Your task to perform on an android device: set the stopwatch Image 0: 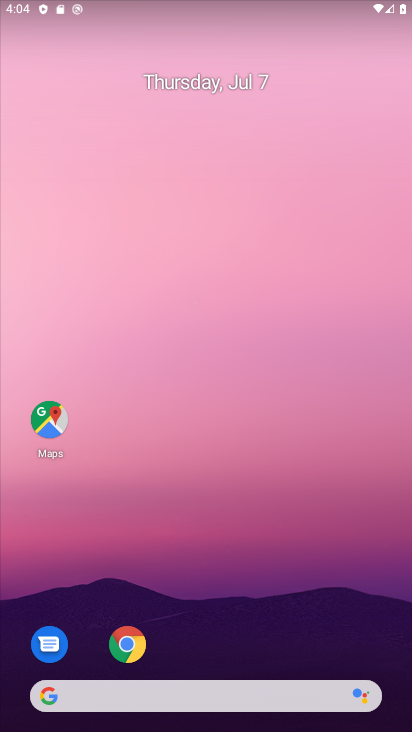
Step 0: press home button
Your task to perform on an android device: set the stopwatch Image 1: 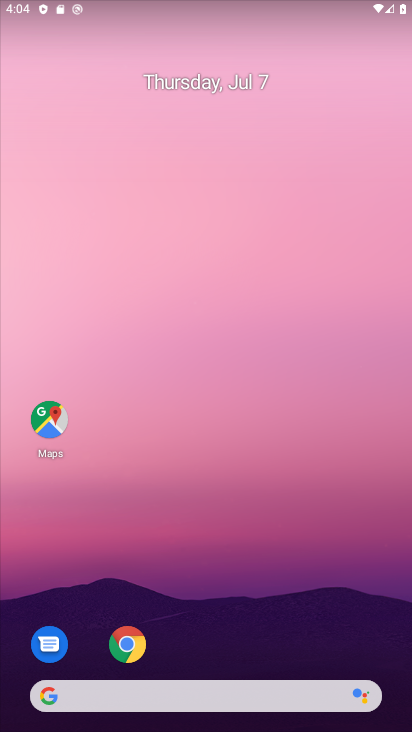
Step 1: drag from (239, 648) to (266, 78)
Your task to perform on an android device: set the stopwatch Image 2: 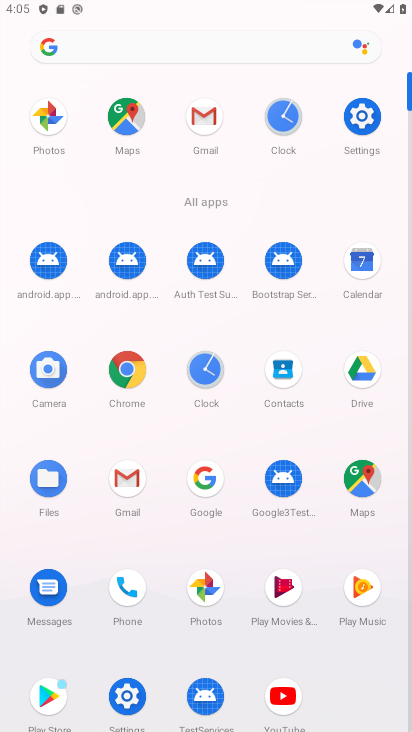
Step 2: click (285, 118)
Your task to perform on an android device: set the stopwatch Image 3: 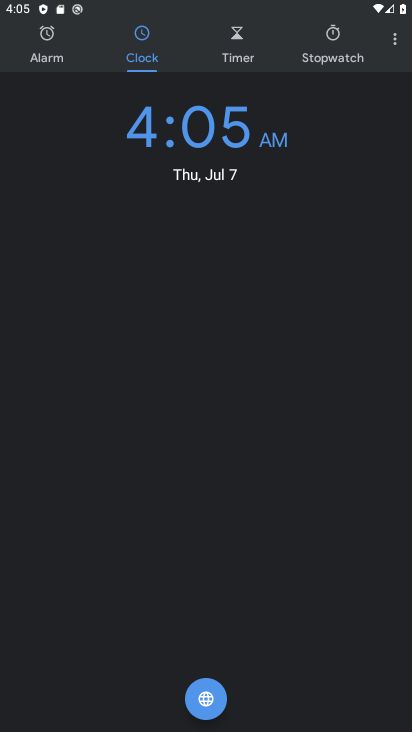
Step 3: click (46, 34)
Your task to perform on an android device: set the stopwatch Image 4: 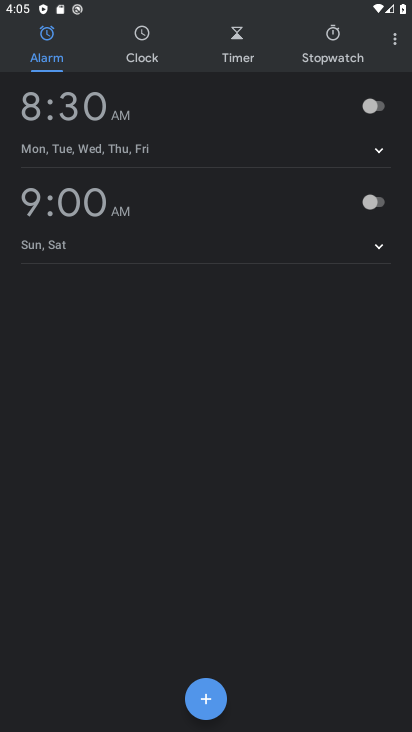
Step 4: click (207, 692)
Your task to perform on an android device: set the stopwatch Image 5: 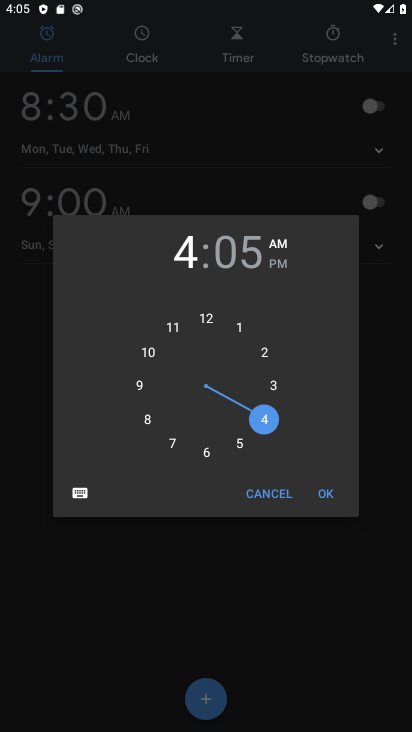
Step 5: click (168, 442)
Your task to perform on an android device: set the stopwatch Image 6: 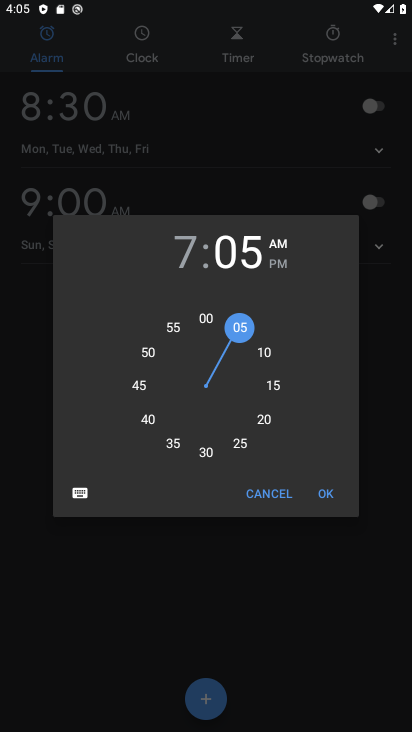
Step 6: click (168, 442)
Your task to perform on an android device: set the stopwatch Image 7: 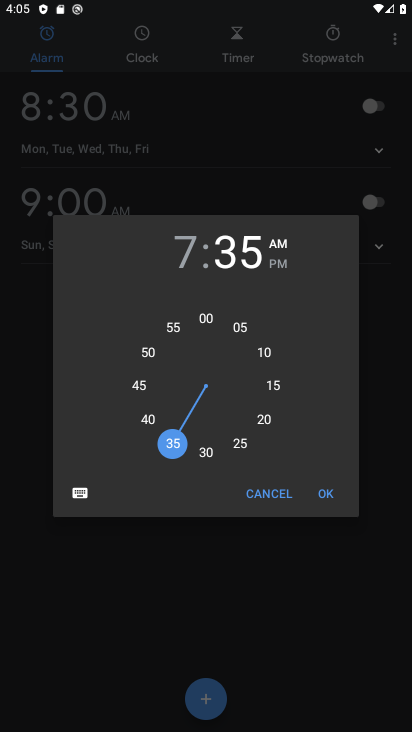
Step 7: click (326, 488)
Your task to perform on an android device: set the stopwatch Image 8: 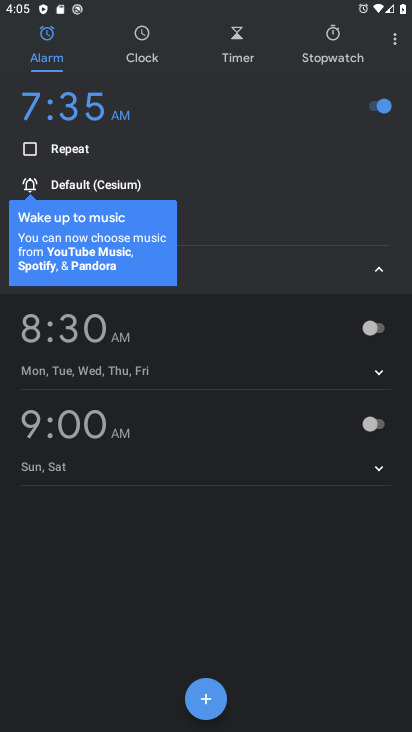
Step 8: click (380, 269)
Your task to perform on an android device: set the stopwatch Image 9: 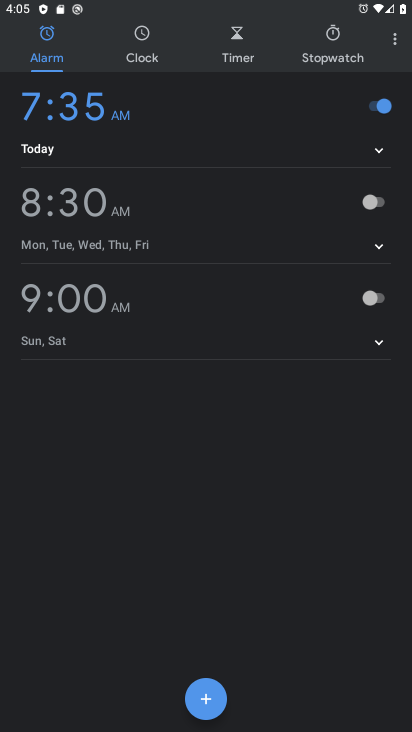
Step 9: task complete